Your task to perform on an android device: Search for a new highlighter Image 0: 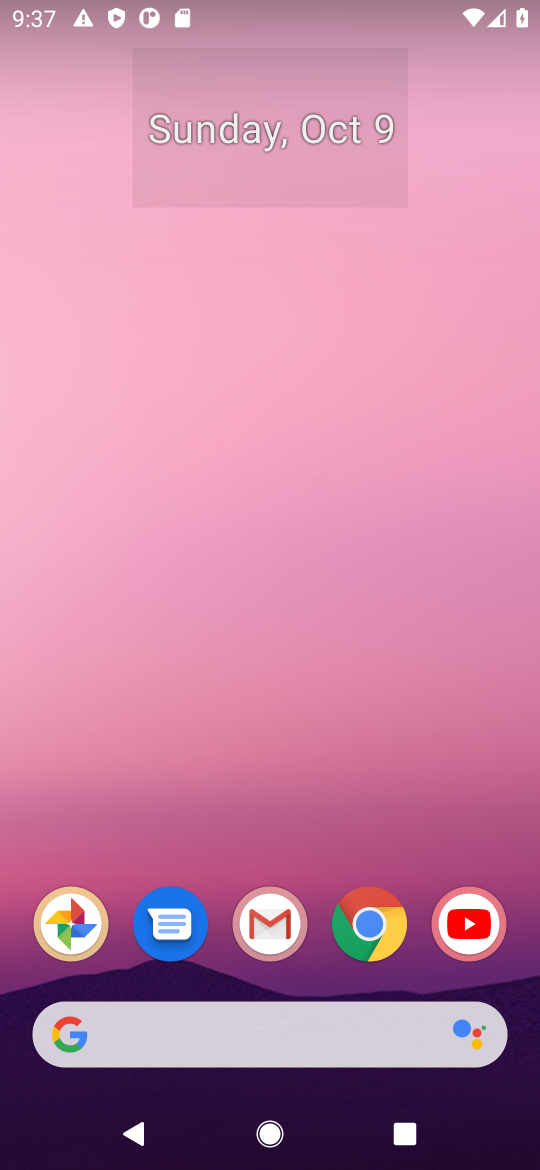
Step 0: click (362, 933)
Your task to perform on an android device: Search for a new highlighter Image 1: 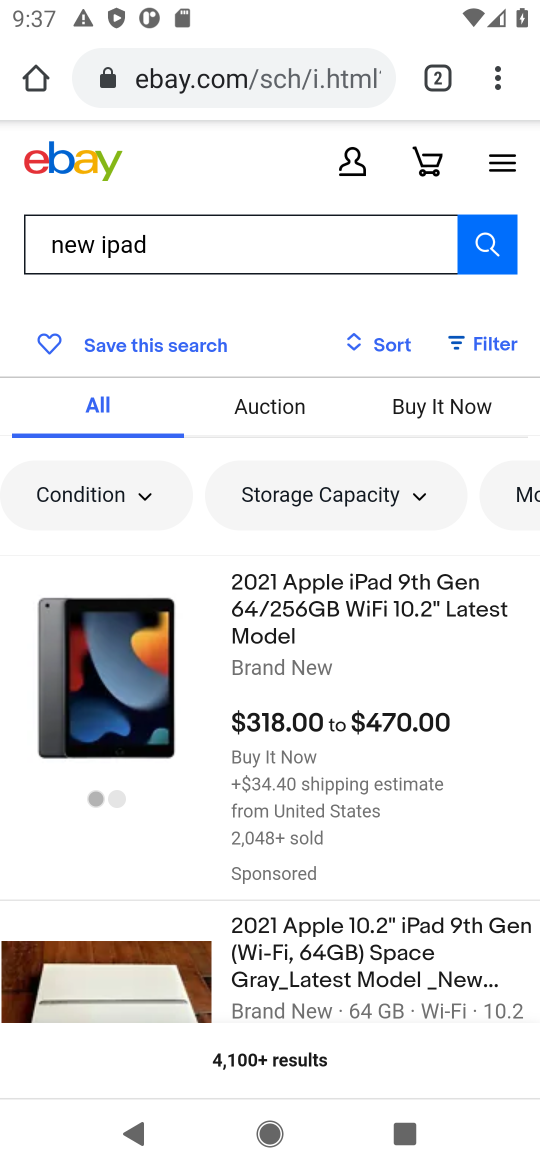
Step 1: click (234, 63)
Your task to perform on an android device: Search for a new highlighter Image 2: 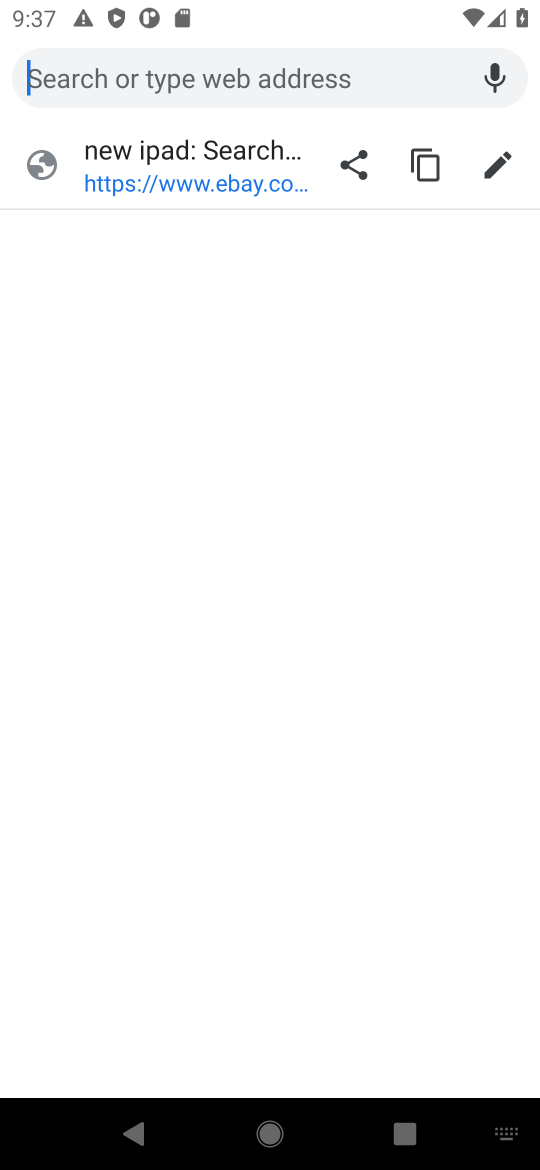
Step 2: type "new highlighter"
Your task to perform on an android device: Search for a new highlighter Image 3: 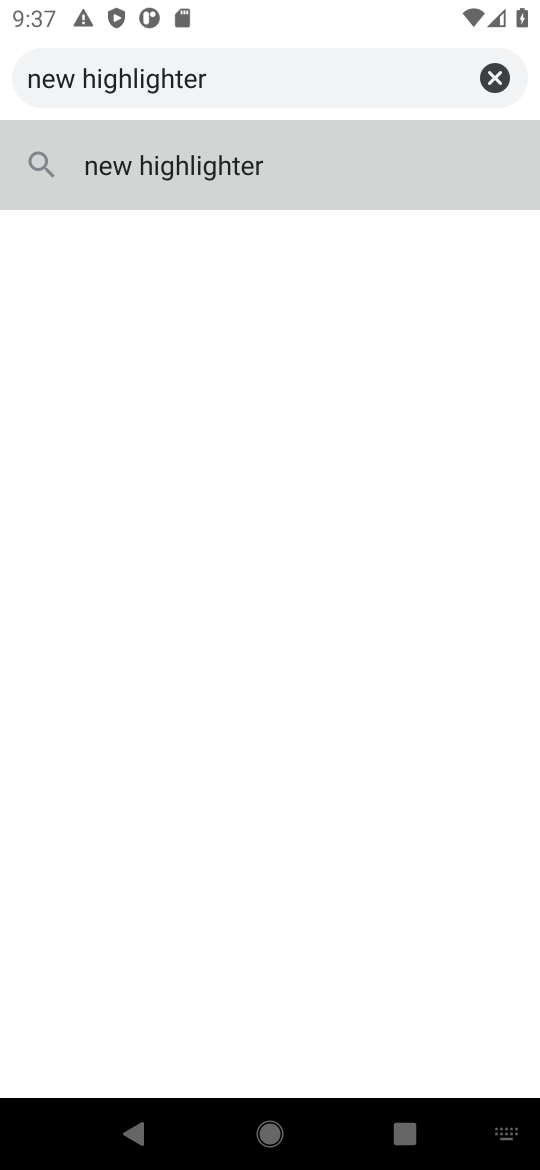
Step 3: press enter
Your task to perform on an android device: Search for a new highlighter Image 4: 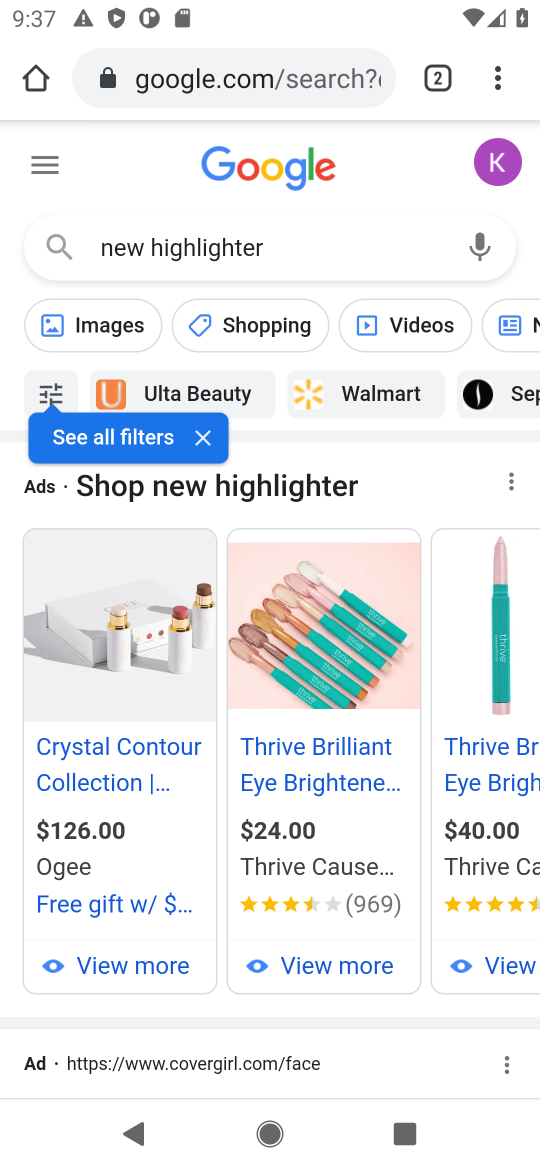
Step 4: task complete